Your task to perform on an android device: Go to Google Image 0: 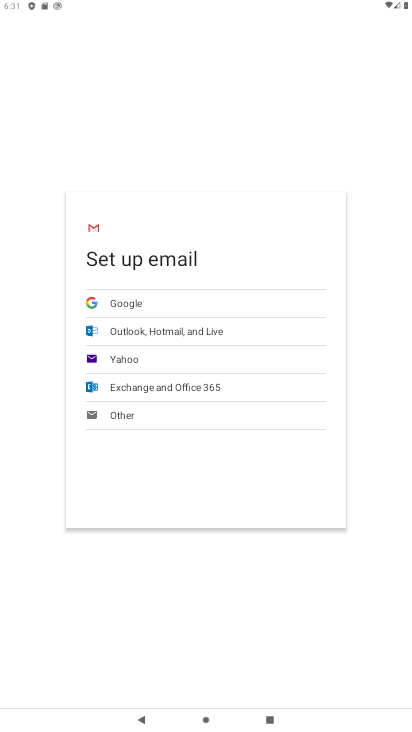
Step 0: press home button
Your task to perform on an android device: Go to Google Image 1: 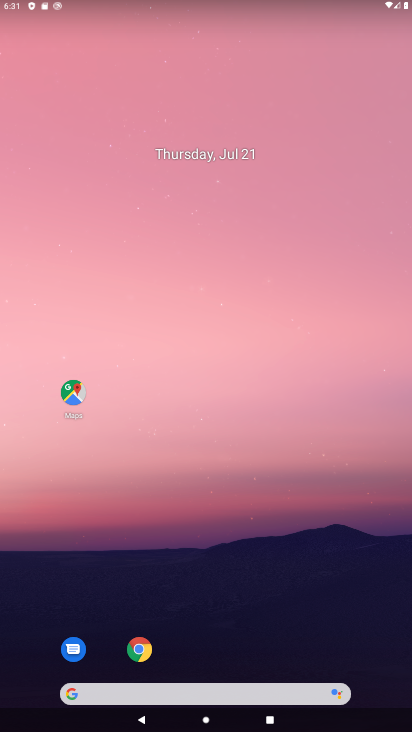
Step 1: drag from (394, 679) to (294, 60)
Your task to perform on an android device: Go to Google Image 2: 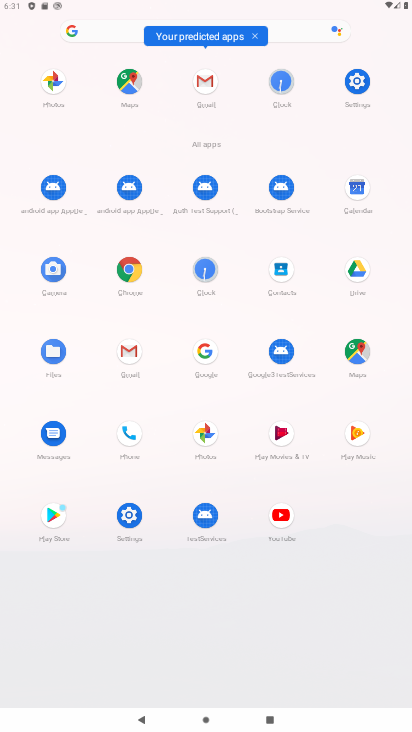
Step 2: click (212, 359)
Your task to perform on an android device: Go to Google Image 3: 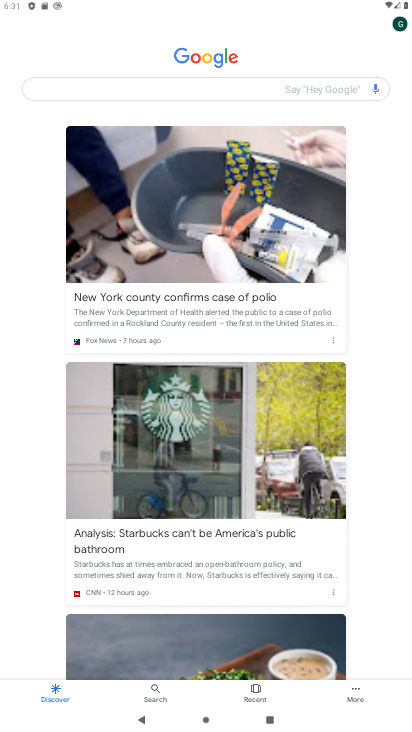
Step 3: task complete